Your task to perform on an android device: Search for razer nari on newegg, select the first entry, and add it to the cart. Image 0: 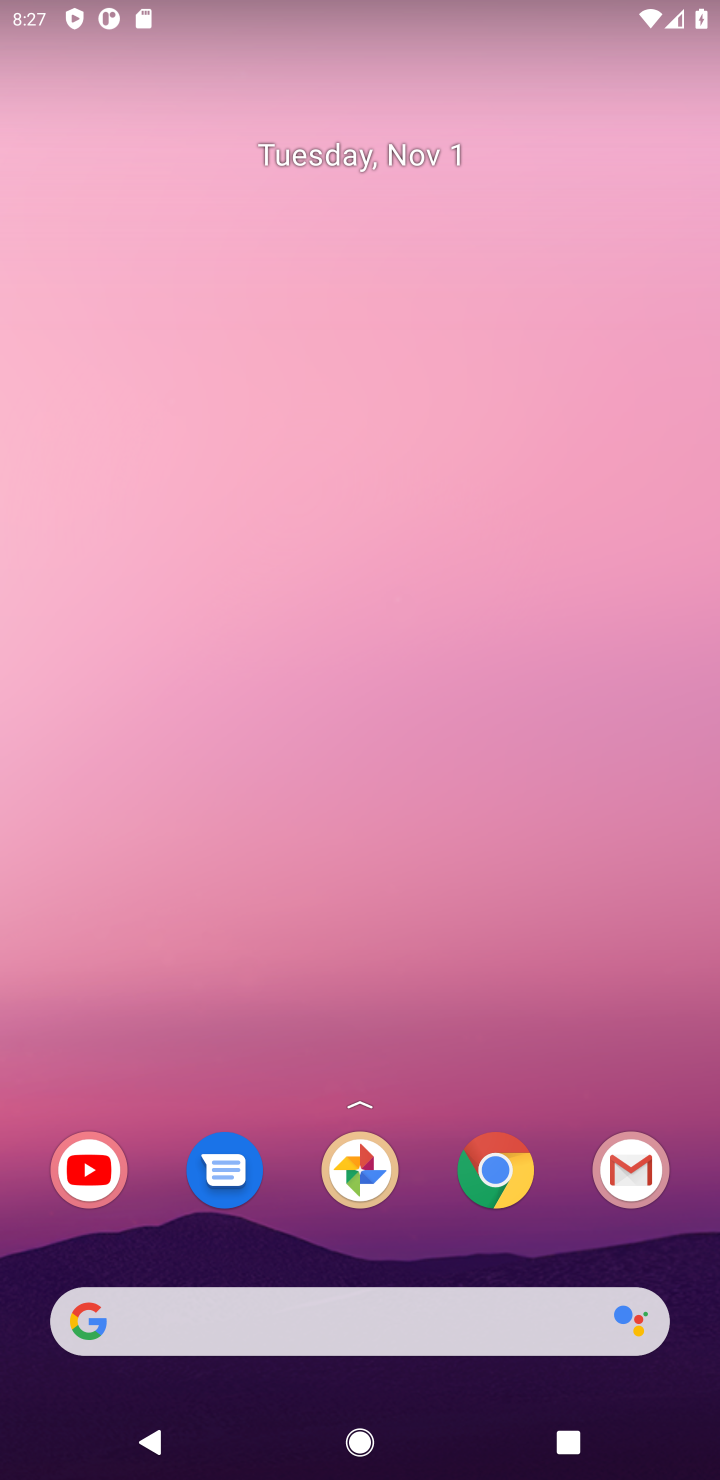
Step 0: click (508, 1172)
Your task to perform on an android device: Search for razer nari on newegg, select the first entry, and add it to the cart. Image 1: 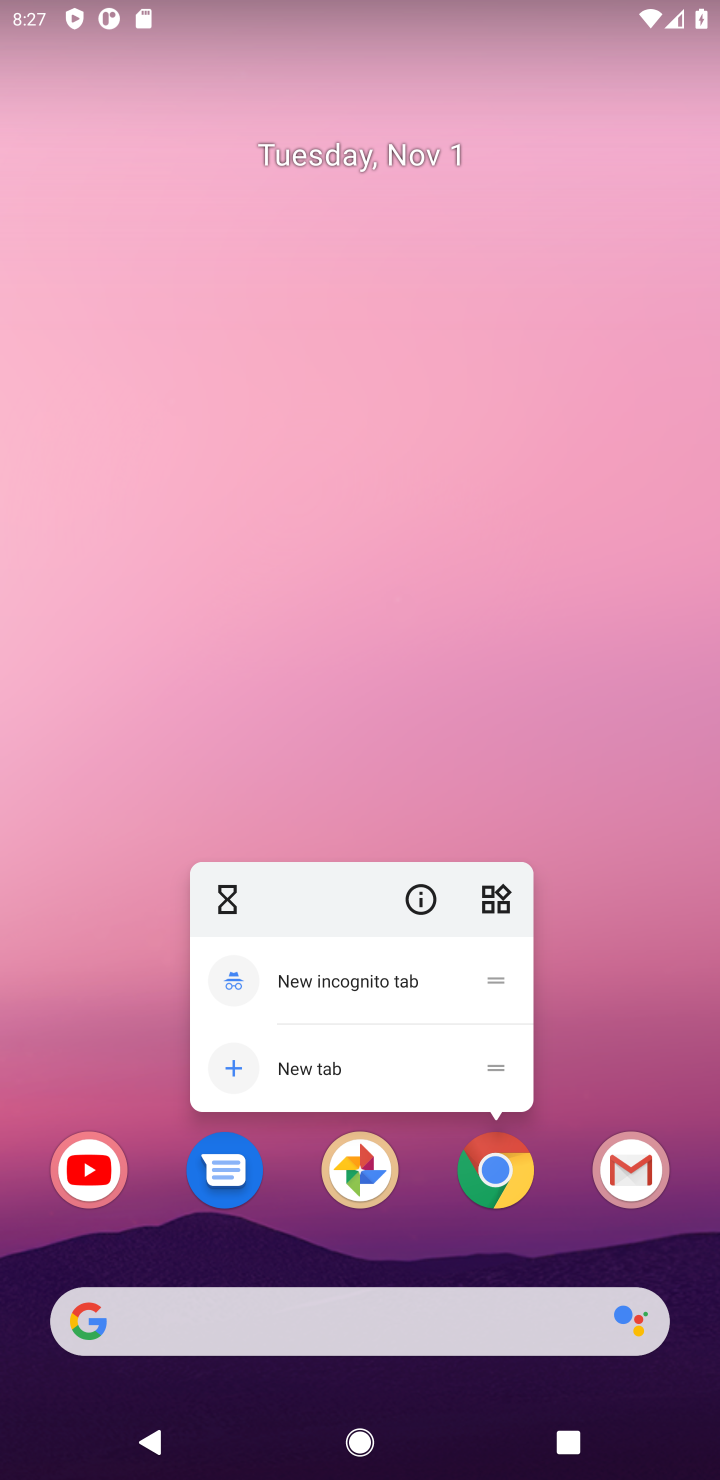
Step 1: click (501, 1179)
Your task to perform on an android device: Search for razer nari on newegg, select the first entry, and add it to the cart. Image 2: 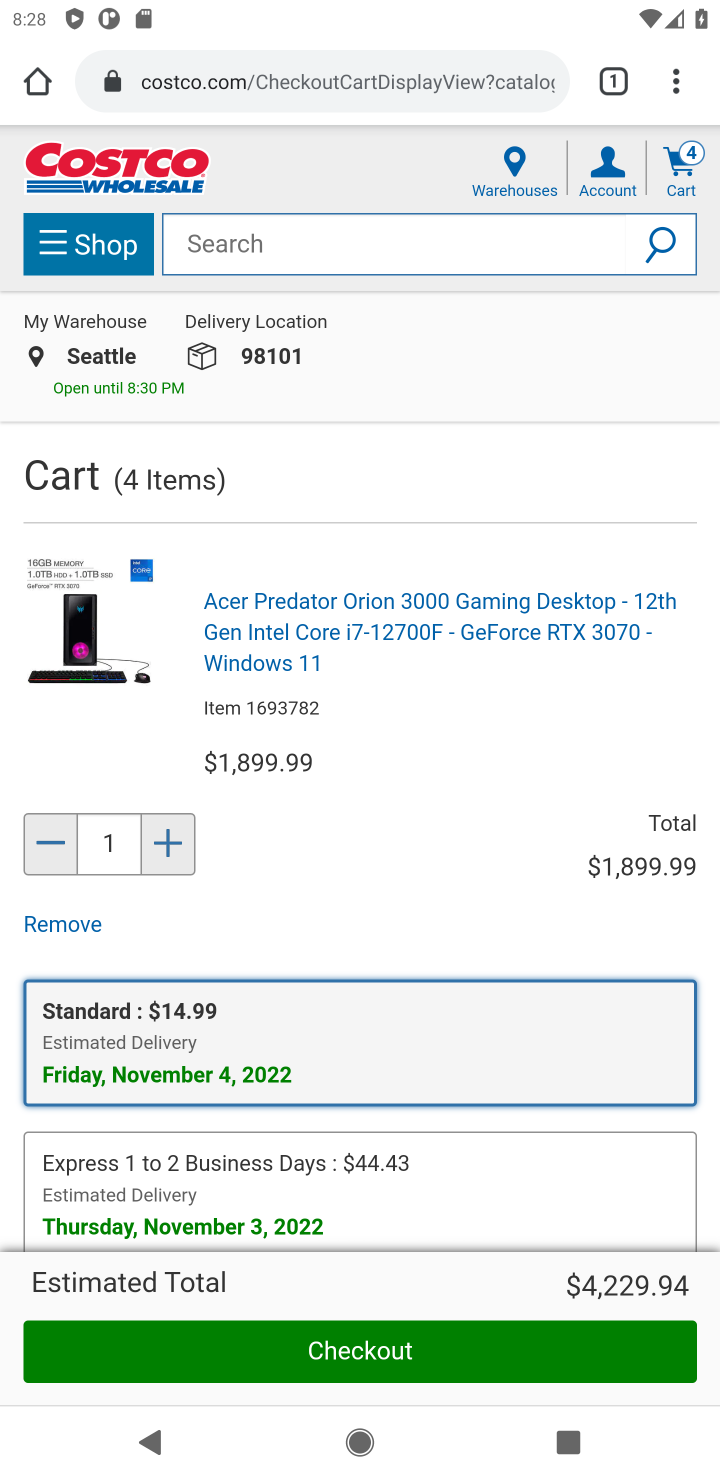
Step 2: click (373, 86)
Your task to perform on an android device: Search for razer nari on newegg, select the first entry, and add it to the cart. Image 3: 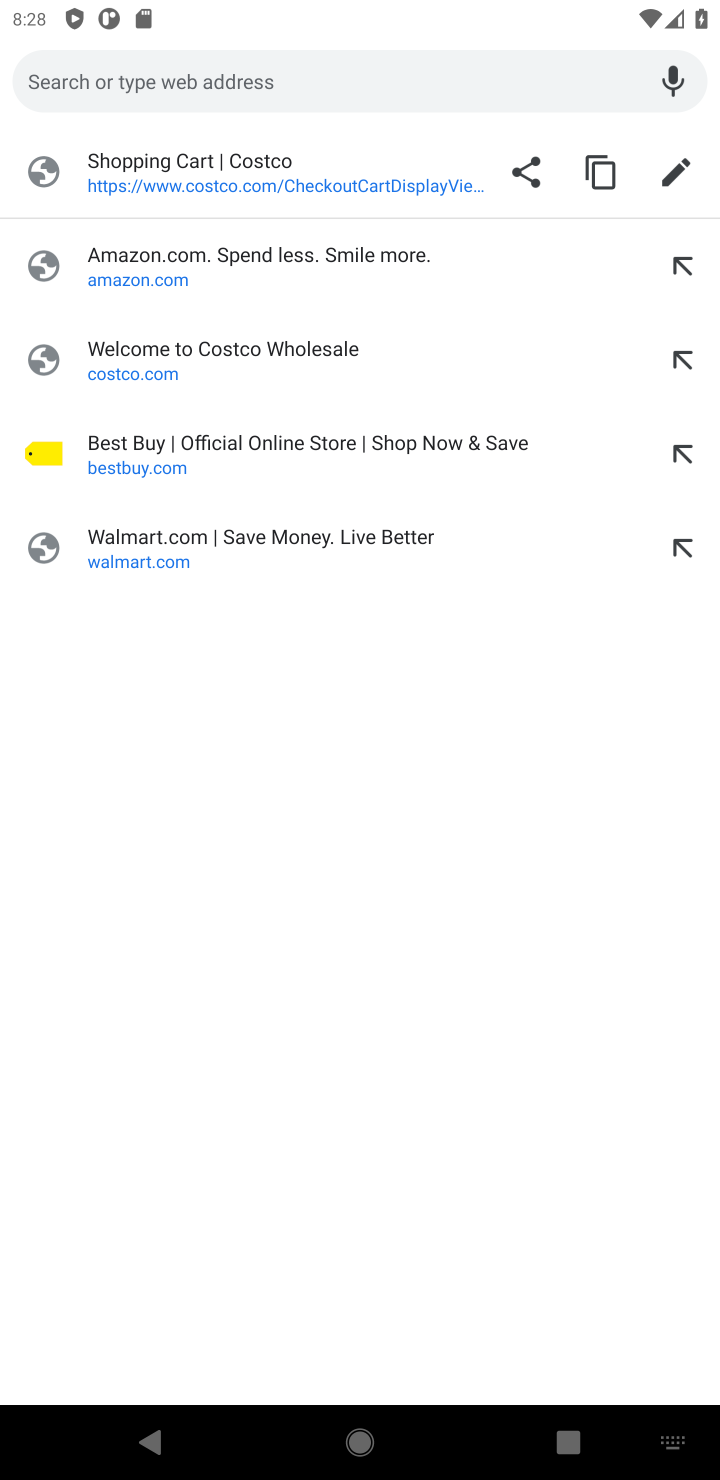
Step 3: type "newegg"
Your task to perform on an android device: Search for razer nari on newegg, select the first entry, and add it to the cart. Image 4: 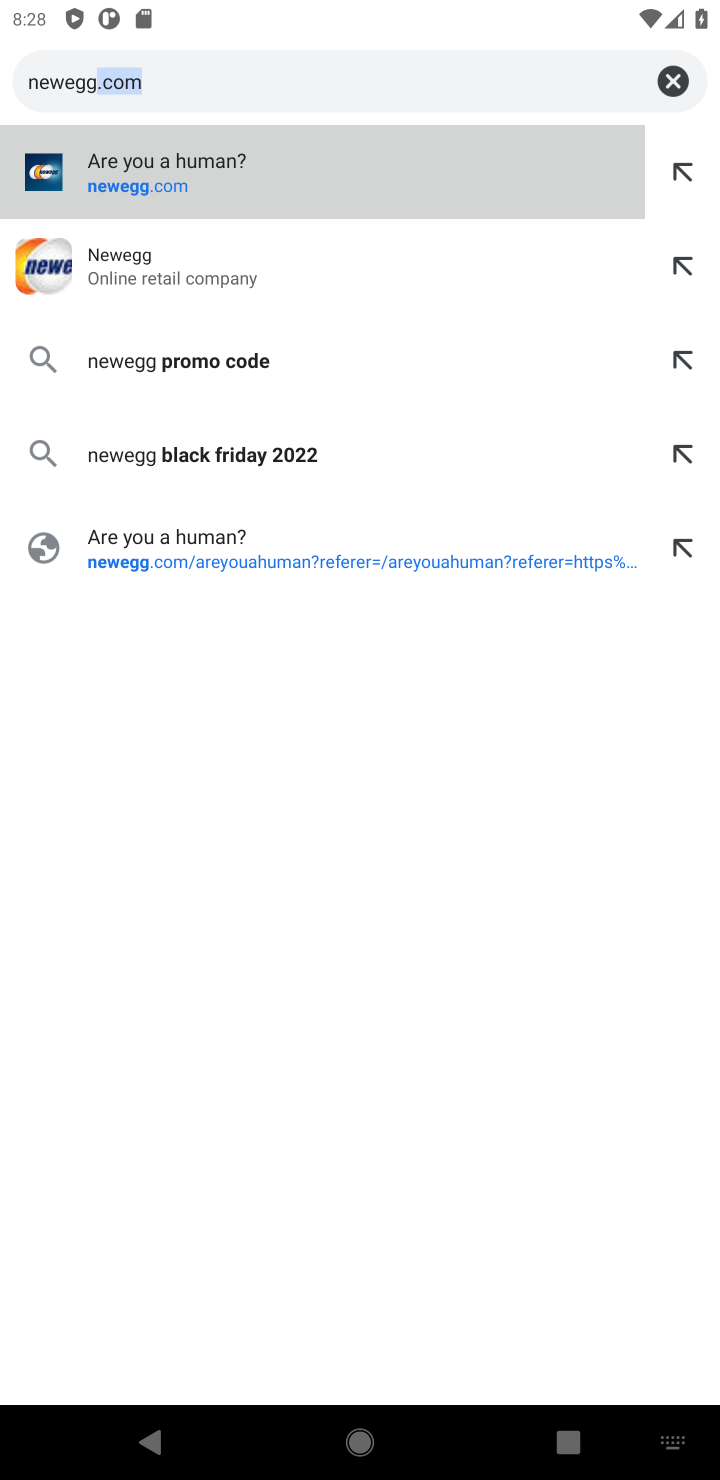
Step 4: type ""
Your task to perform on an android device: Search for razer nari on newegg, select the first entry, and add it to the cart. Image 5: 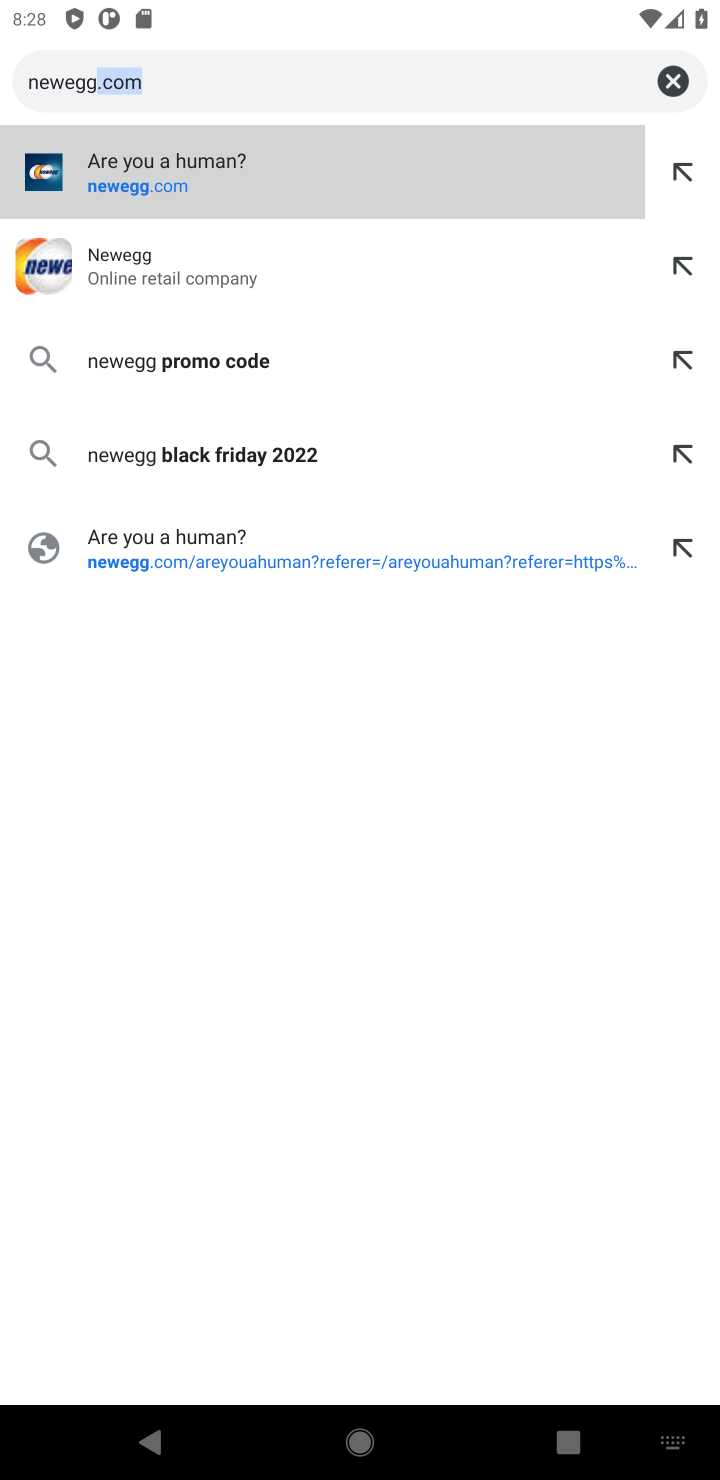
Step 5: press enter
Your task to perform on an android device: Search for razer nari on newegg, select the first entry, and add it to the cart. Image 6: 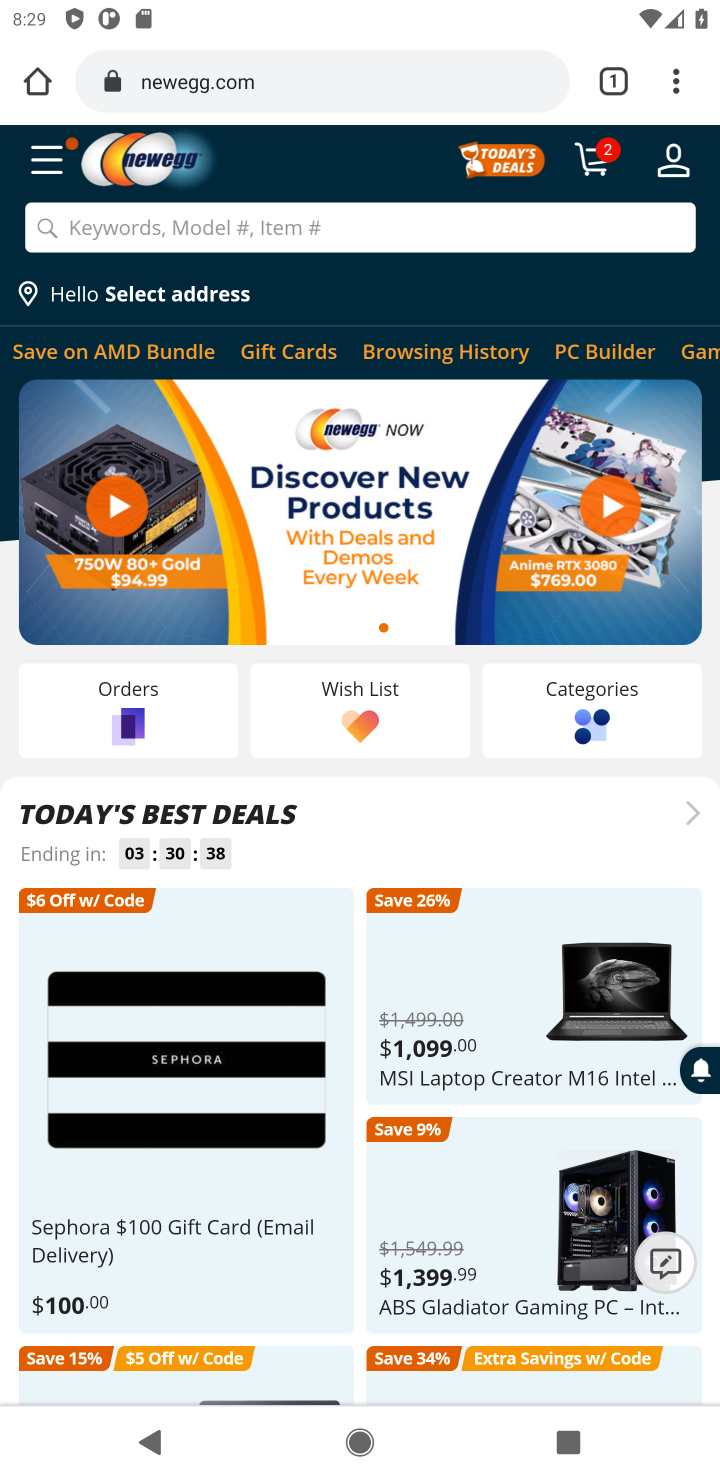
Step 6: drag from (229, 1156) to (238, 859)
Your task to perform on an android device: Search for razer nari on newegg, select the first entry, and add it to the cart. Image 7: 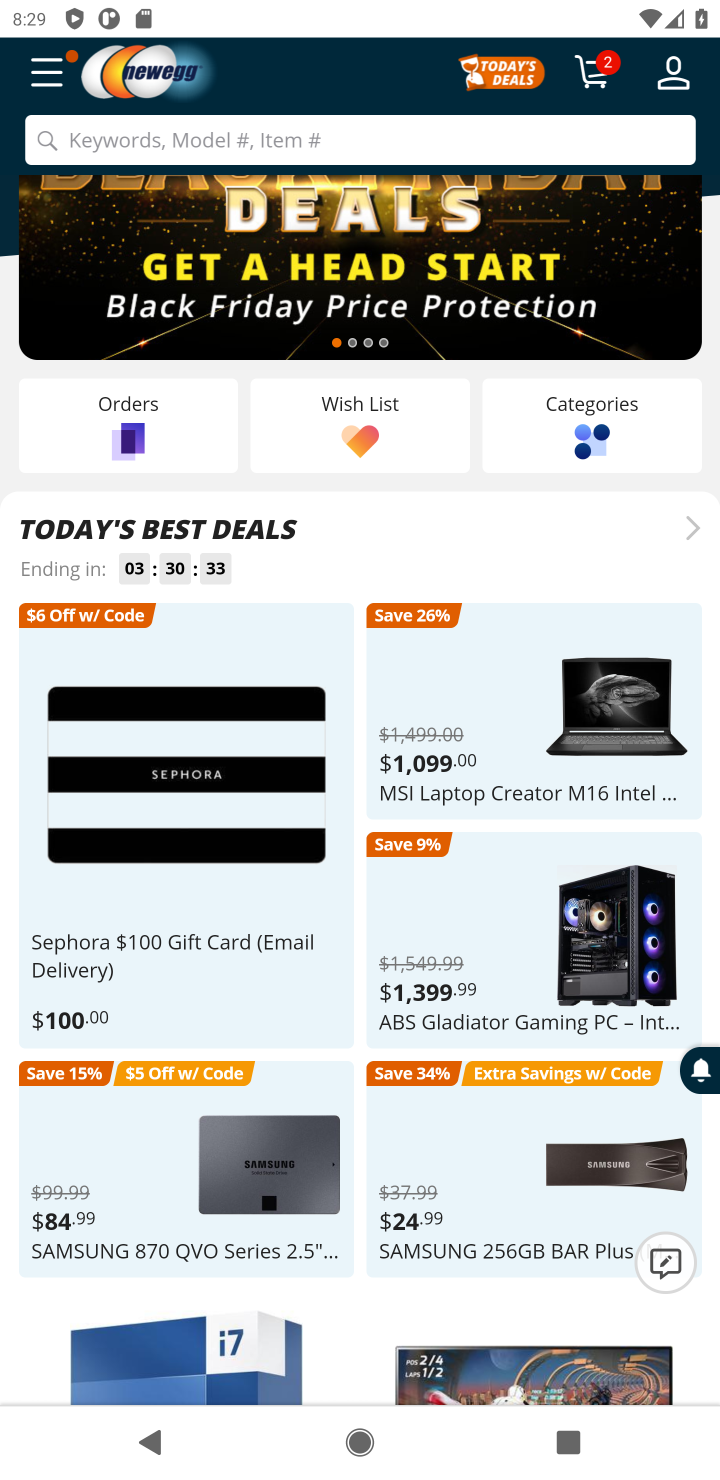
Step 7: click (168, 922)
Your task to perform on an android device: Search for razer nari on newegg, select the first entry, and add it to the cart. Image 8: 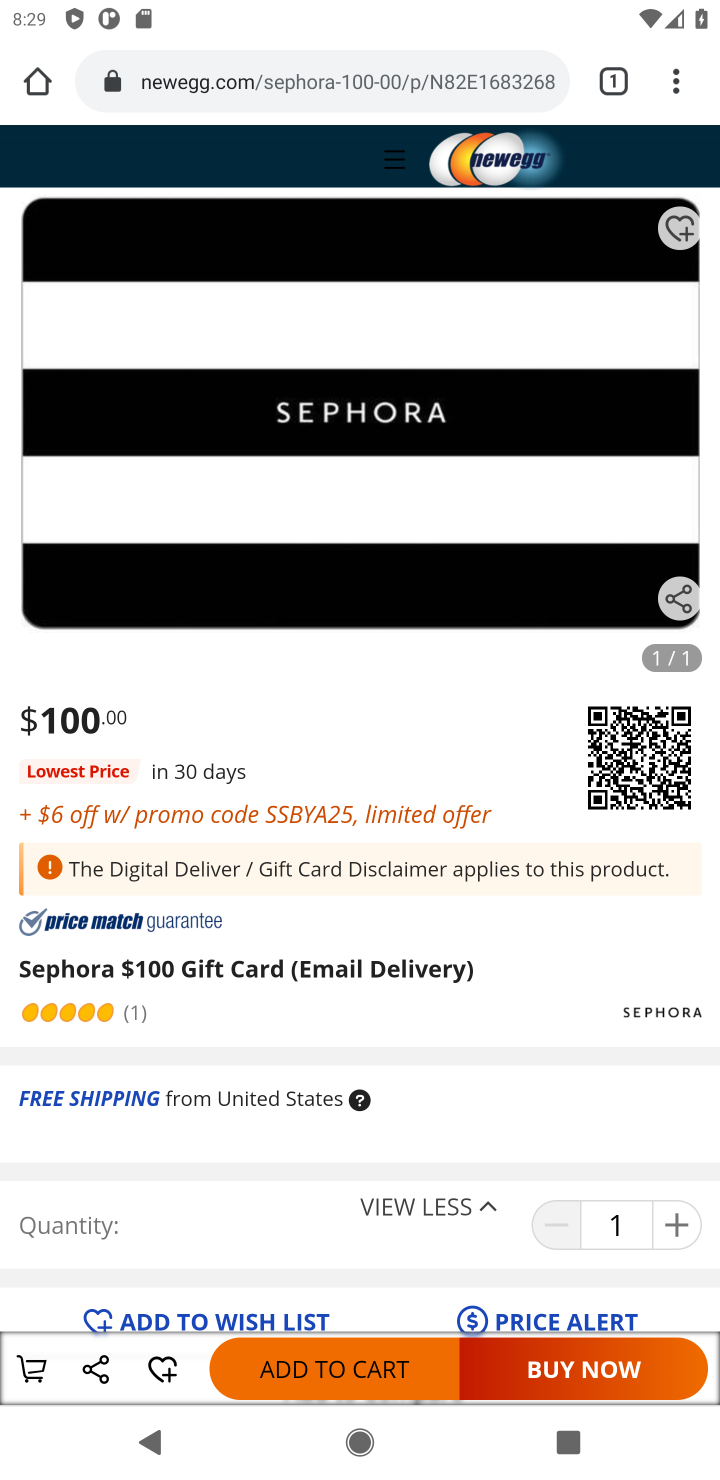
Step 8: click (345, 1380)
Your task to perform on an android device: Search for razer nari on newegg, select the first entry, and add it to the cart. Image 9: 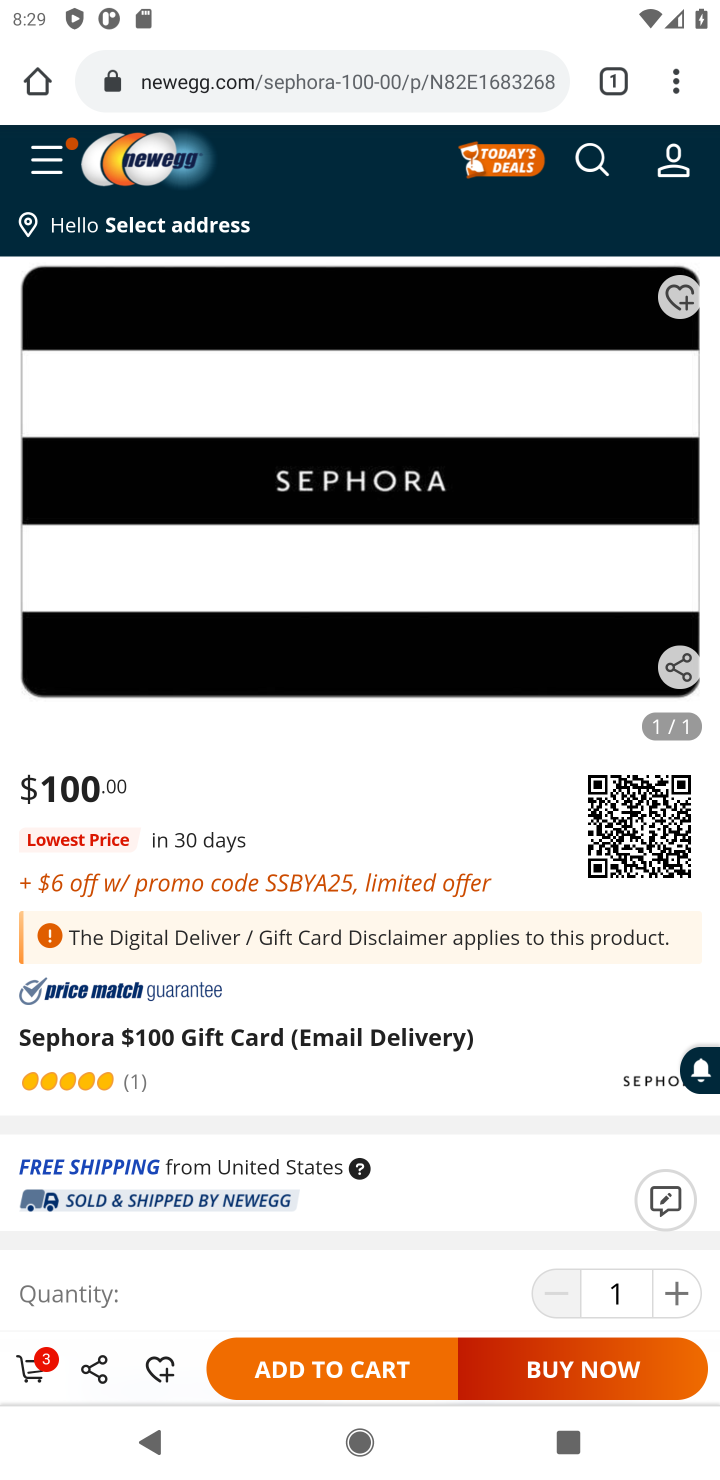
Step 9: task complete